Your task to perform on an android device: Open my contact list Image 0: 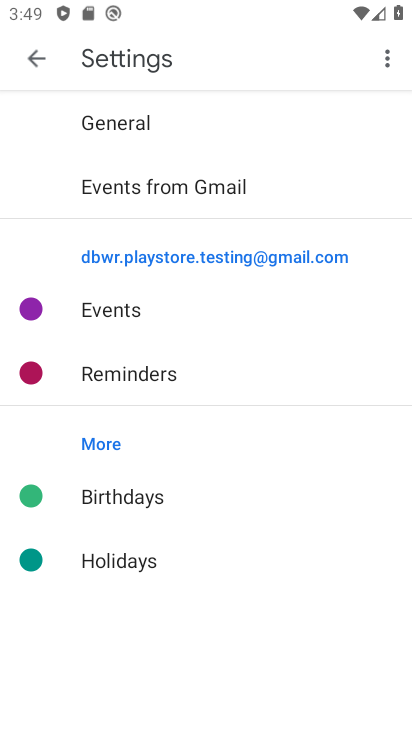
Step 0: press home button
Your task to perform on an android device: Open my contact list Image 1: 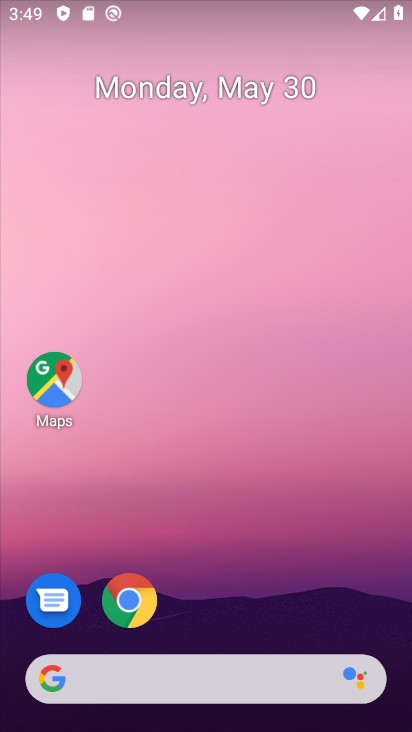
Step 1: drag from (223, 643) to (242, 66)
Your task to perform on an android device: Open my contact list Image 2: 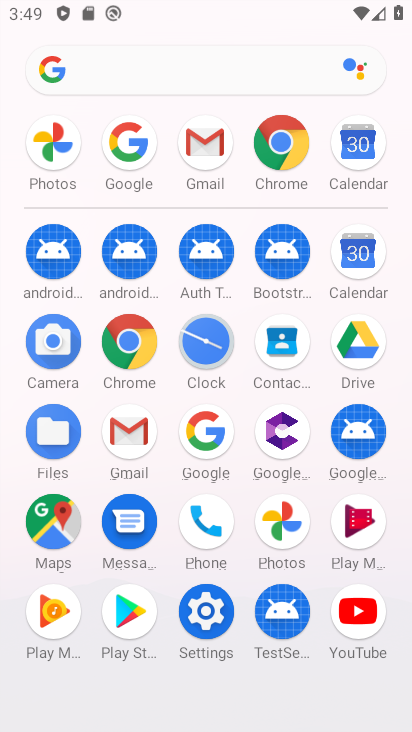
Step 2: click (275, 344)
Your task to perform on an android device: Open my contact list Image 3: 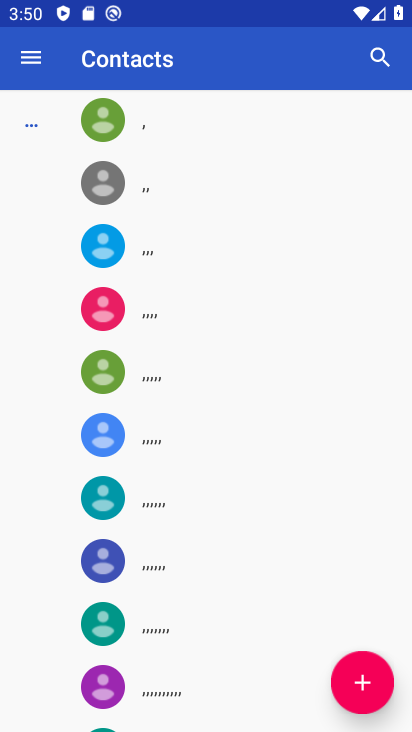
Step 3: task complete